Your task to perform on an android device: Clear the shopping cart on walmart.com. Add "usb-c to usb-b" to the cart on walmart.com, then select checkout. Image 0: 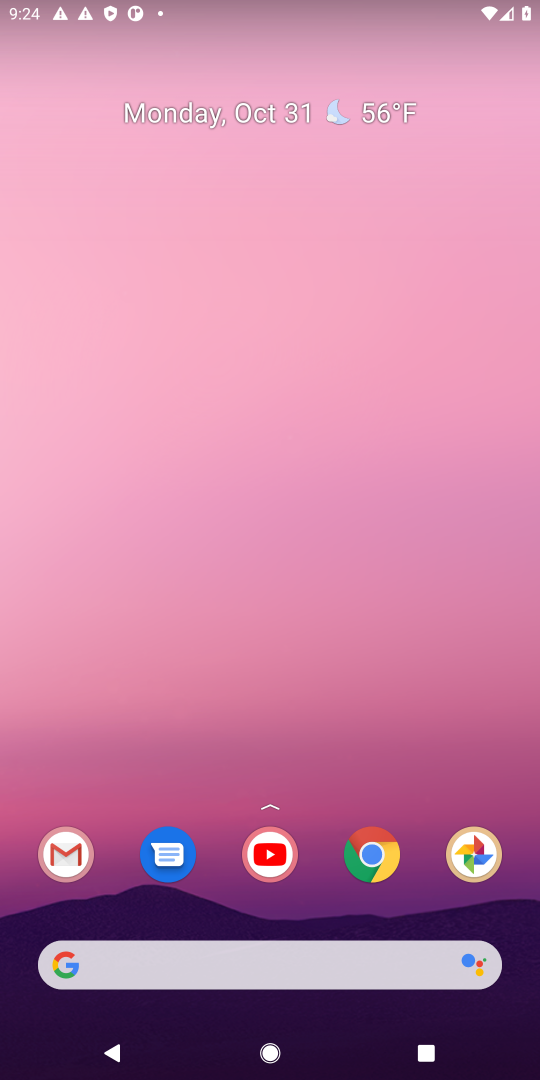
Step 0: click (298, 981)
Your task to perform on an android device: Clear the shopping cart on walmart.com. Add "usb-c to usb-b" to the cart on walmart.com, then select checkout. Image 1: 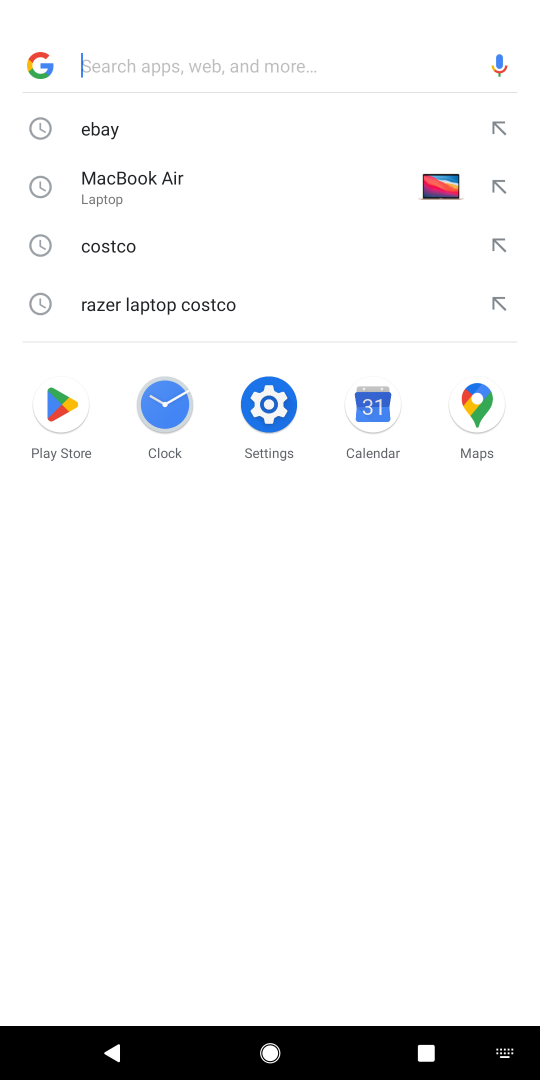
Step 1: type "walmart"
Your task to perform on an android device: Clear the shopping cart on walmart.com. Add "usb-c to usb-b" to the cart on walmart.com, then select checkout. Image 2: 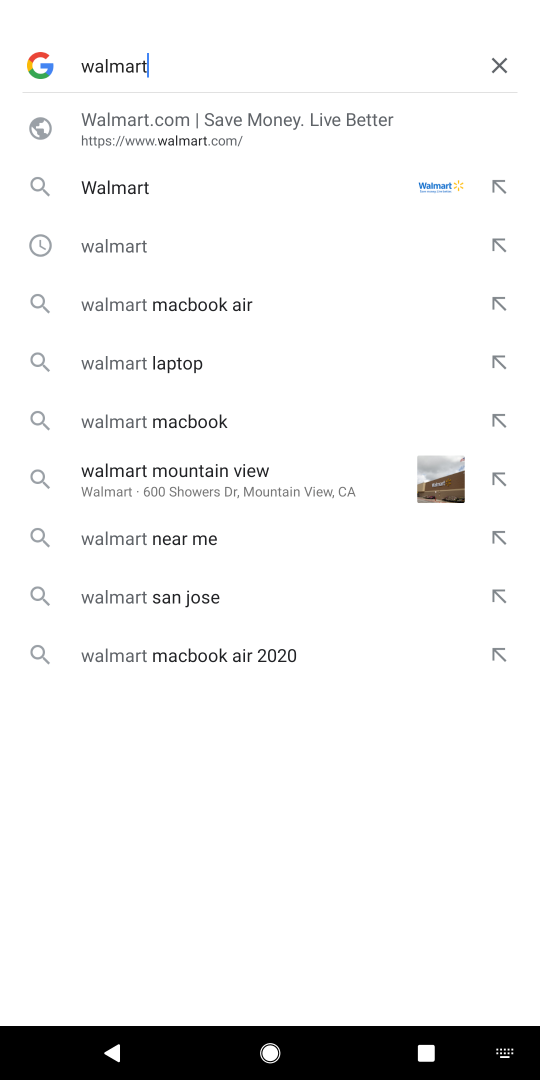
Step 2: click (178, 161)
Your task to perform on an android device: Clear the shopping cart on walmart.com. Add "usb-c to usb-b" to the cart on walmart.com, then select checkout. Image 3: 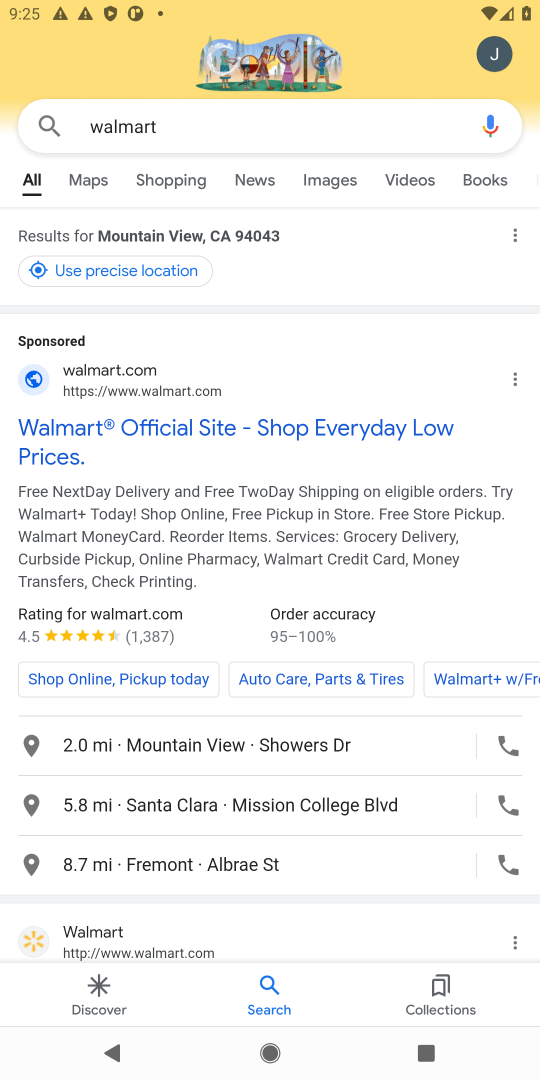
Step 3: click (128, 443)
Your task to perform on an android device: Clear the shopping cart on walmart.com. Add "usb-c to usb-b" to the cart on walmart.com, then select checkout. Image 4: 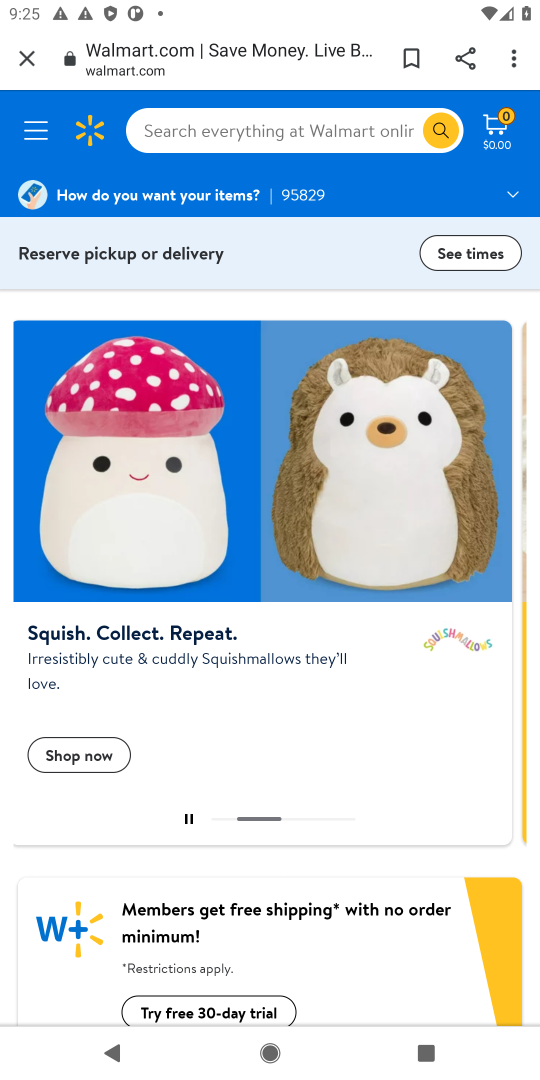
Step 4: click (201, 121)
Your task to perform on an android device: Clear the shopping cart on walmart.com. Add "usb-c to usb-b" to the cart on walmart.com, then select checkout. Image 5: 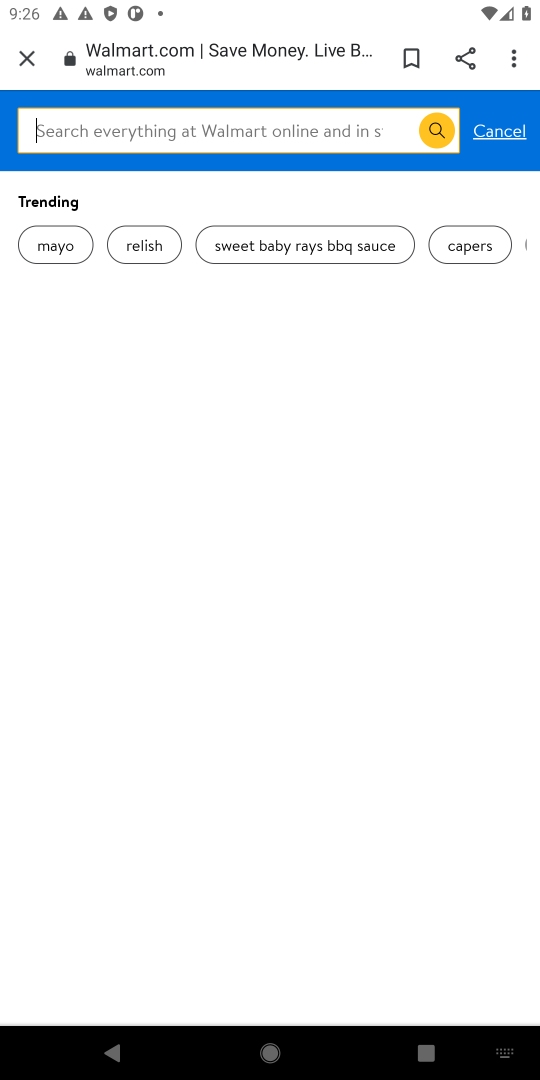
Step 5: type "usb -c"
Your task to perform on an android device: Clear the shopping cart on walmart.com. Add "usb-c to usb-b" to the cart on walmart.com, then select checkout. Image 6: 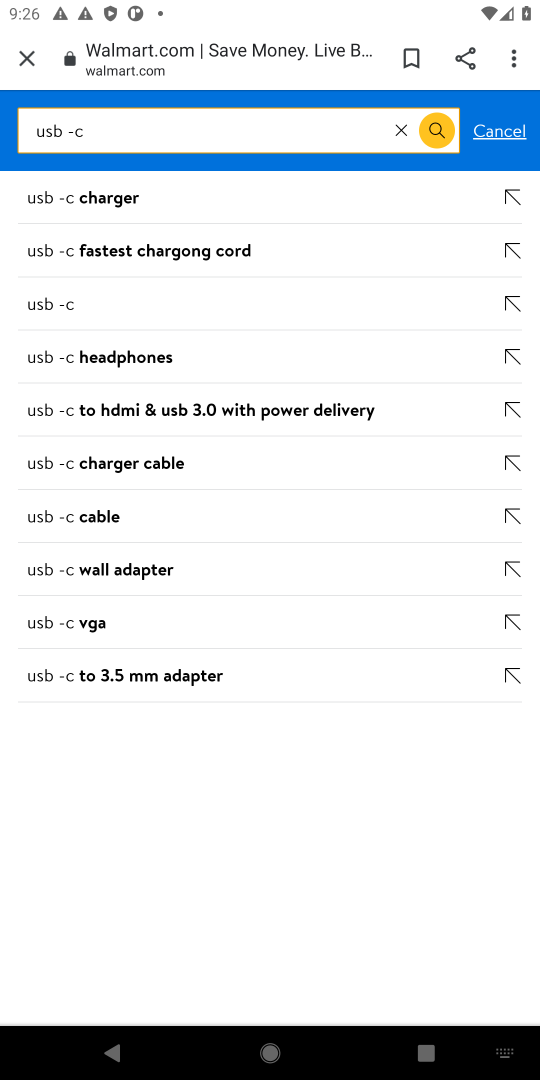
Step 6: click (74, 189)
Your task to perform on an android device: Clear the shopping cart on walmart.com. Add "usb-c to usb-b" to the cart on walmart.com, then select checkout. Image 7: 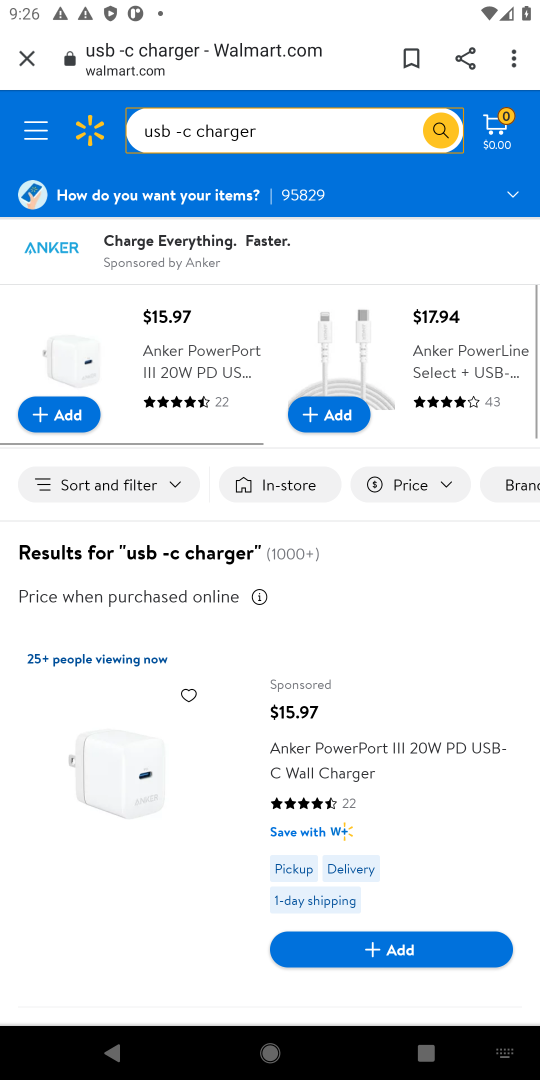
Step 7: click (375, 962)
Your task to perform on an android device: Clear the shopping cart on walmart.com. Add "usb-c to usb-b" to the cart on walmart.com, then select checkout. Image 8: 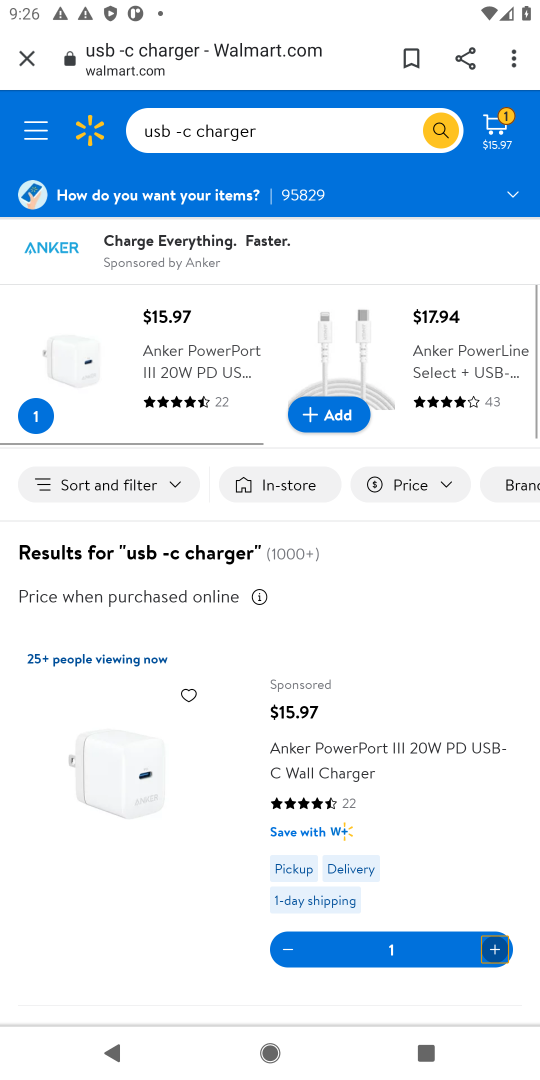
Step 8: task complete